Your task to perform on an android device: check out phone information Image 0: 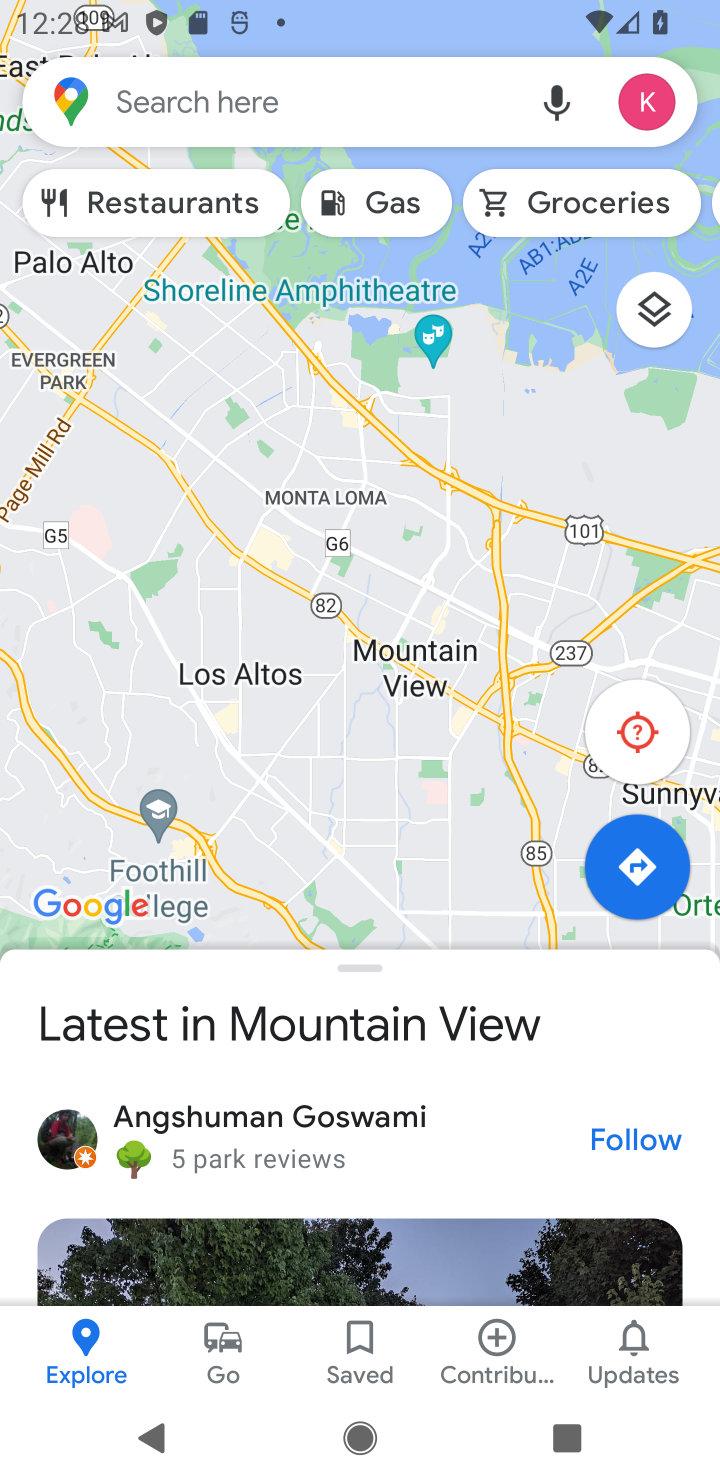
Step 0: press home button
Your task to perform on an android device: check out phone information Image 1: 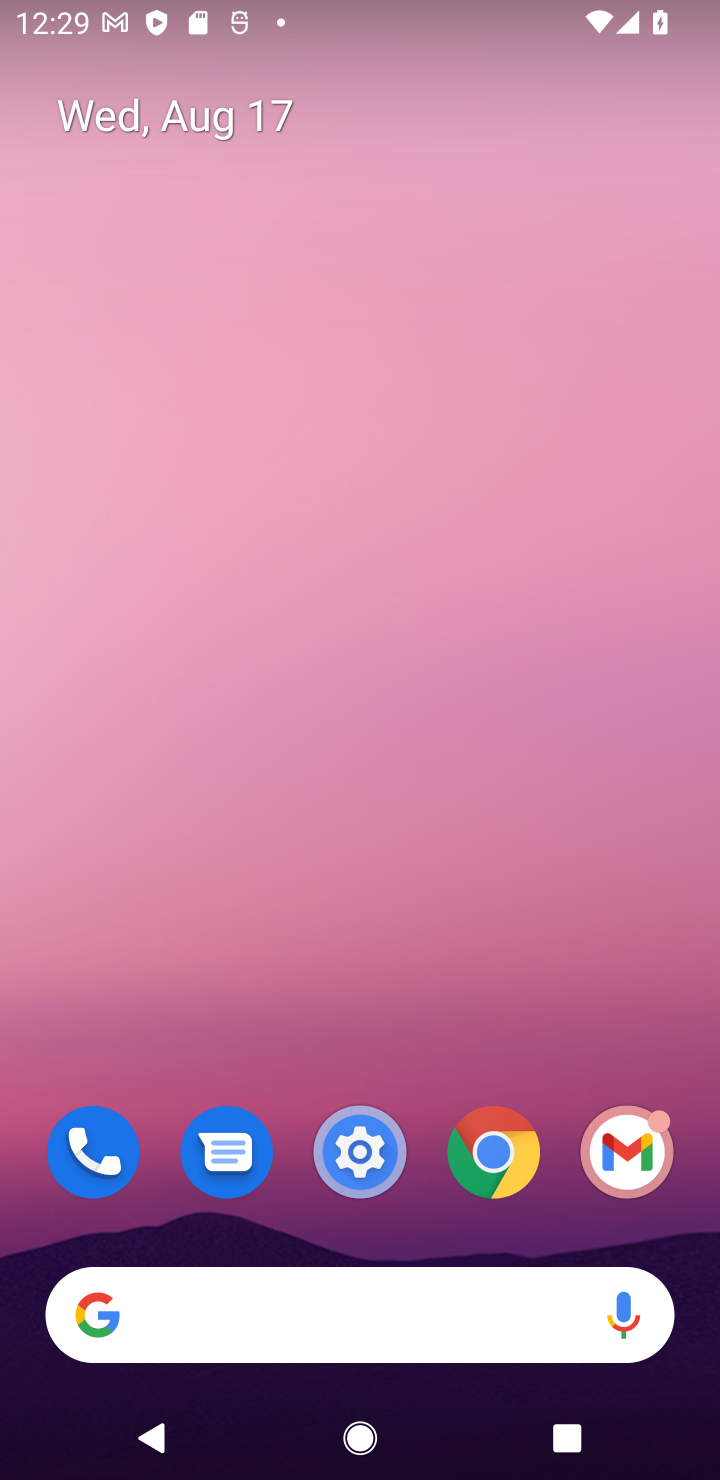
Step 1: drag from (681, 1235) to (372, 31)
Your task to perform on an android device: check out phone information Image 2: 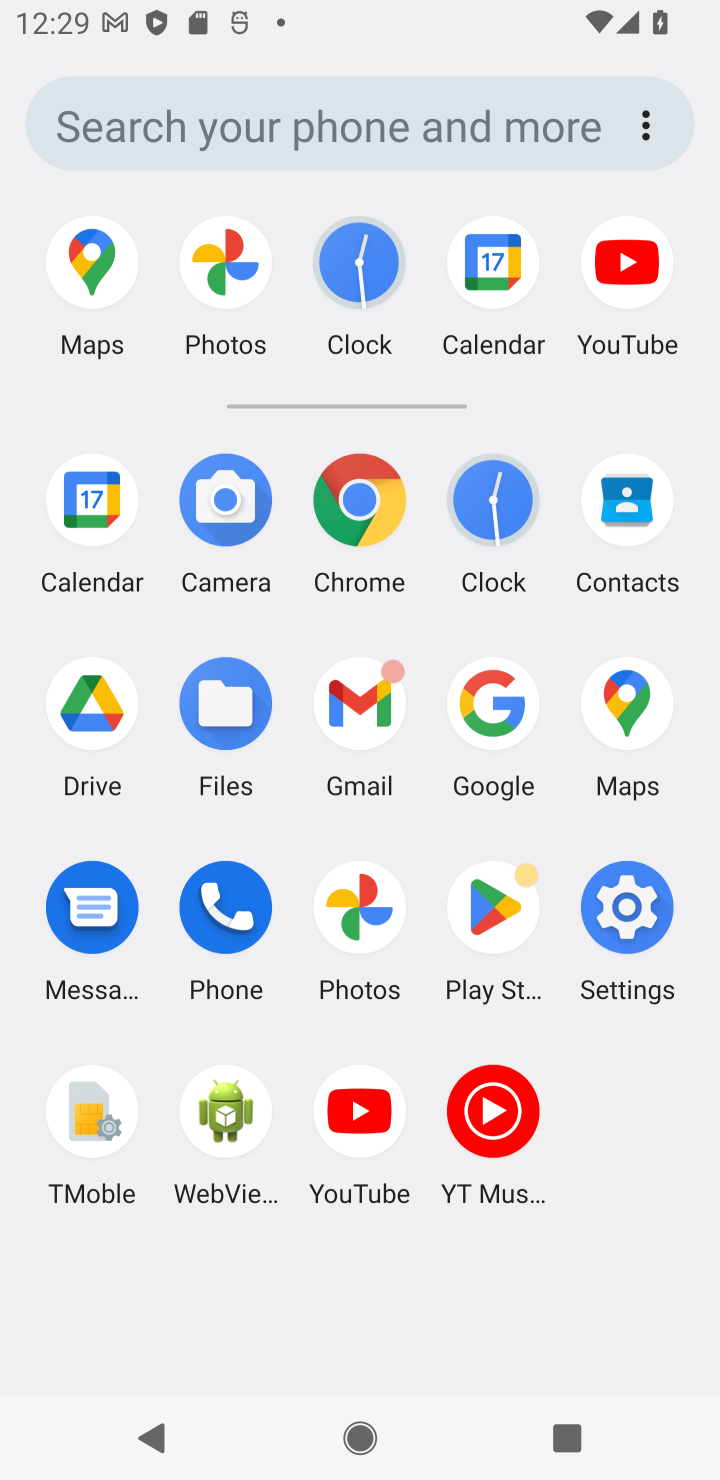
Step 2: click (620, 915)
Your task to perform on an android device: check out phone information Image 3: 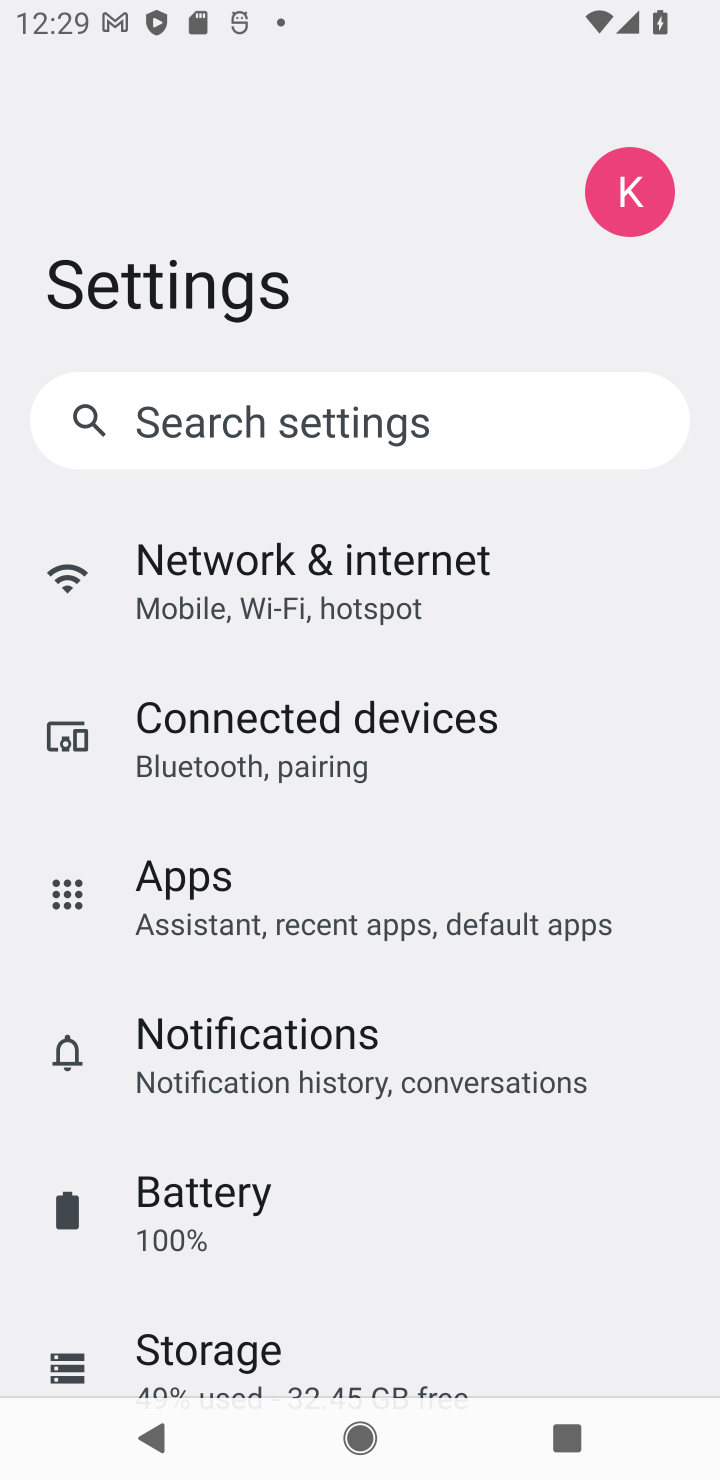
Step 3: task complete